Your task to perform on an android device: Open sound settings Image 0: 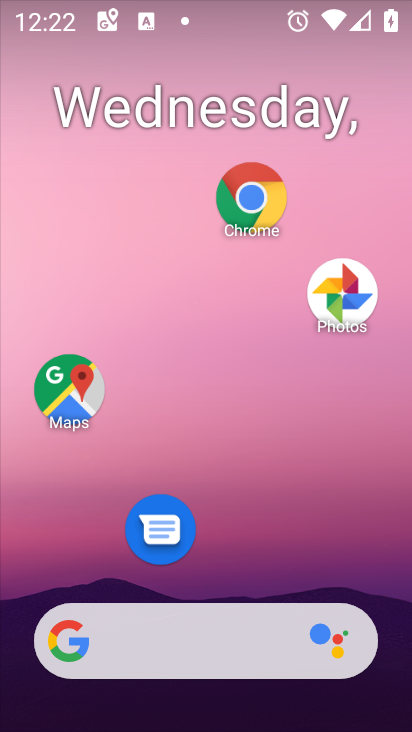
Step 0: drag from (180, 631) to (179, 221)
Your task to perform on an android device: Open sound settings Image 1: 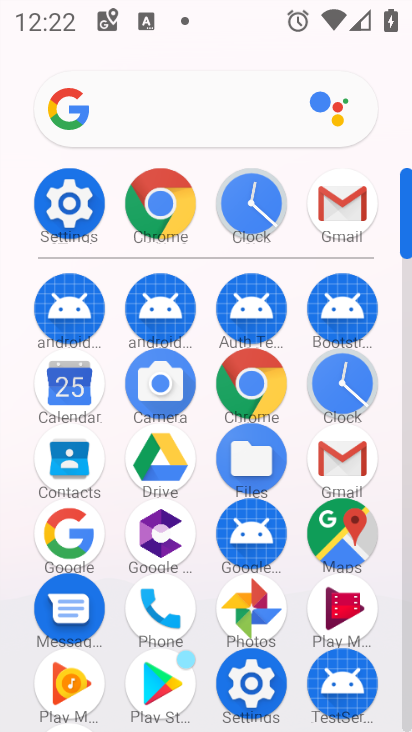
Step 1: click (68, 217)
Your task to perform on an android device: Open sound settings Image 2: 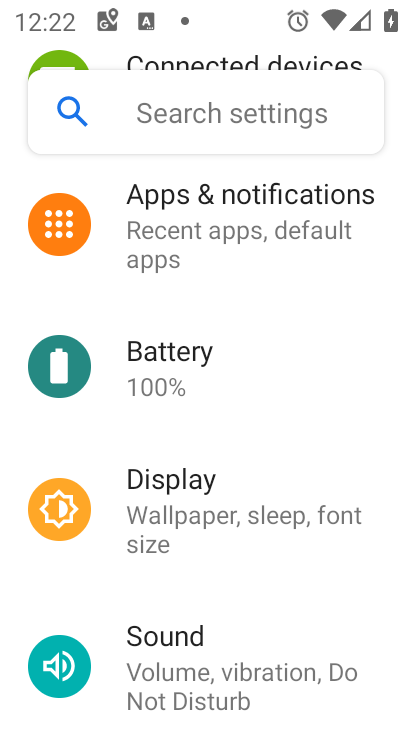
Step 2: drag from (204, 508) to (193, 283)
Your task to perform on an android device: Open sound settings Image 3: 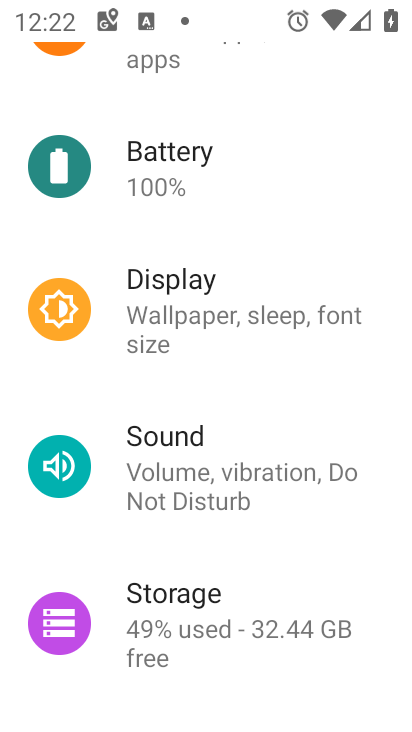
Step 3: drag from (212, 481) to (212, 395)
Your task to perform on an android device: Open sound settings Image 4: 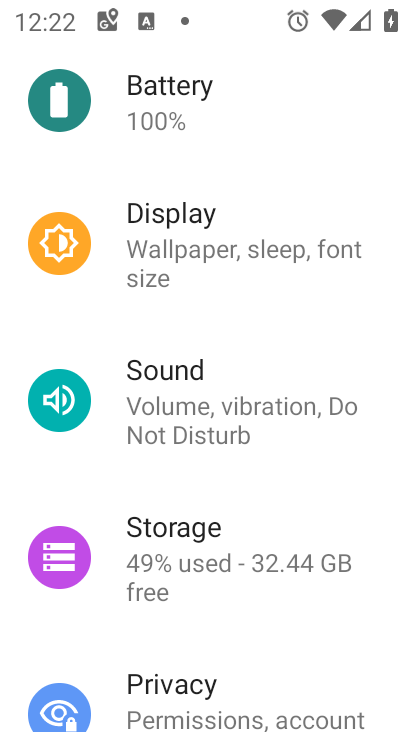
Step 4: click (208, 401)
Your task to perform on an android device: Open sound settings Image 5: 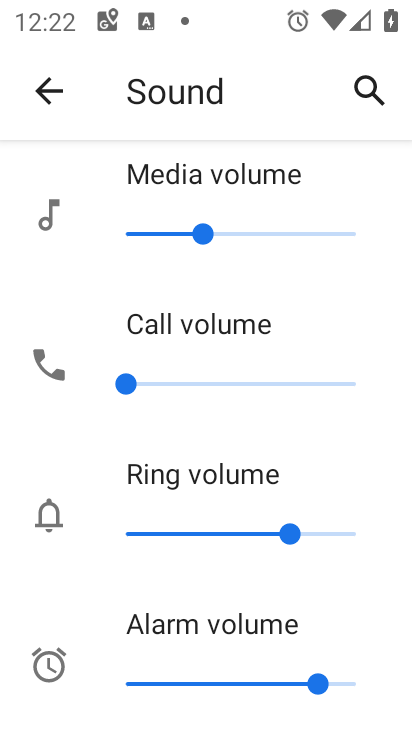
Step 5: task complete